Your task to perform on an android device: install app "Pluto TV - Live TV and Movies" Image 0: 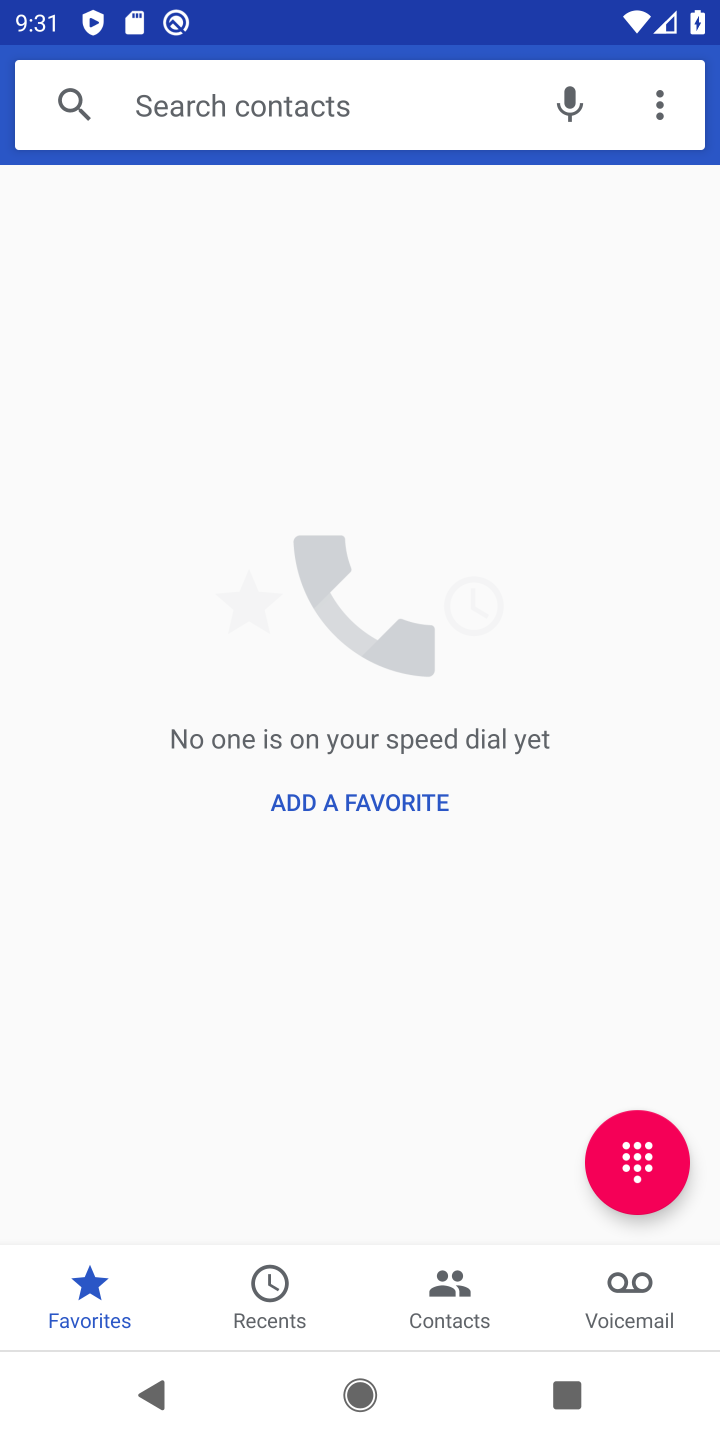
Step 0: press home button
Your task to perform on an android device: install app "Pluto TV - Live TV and Movies" Image 1: 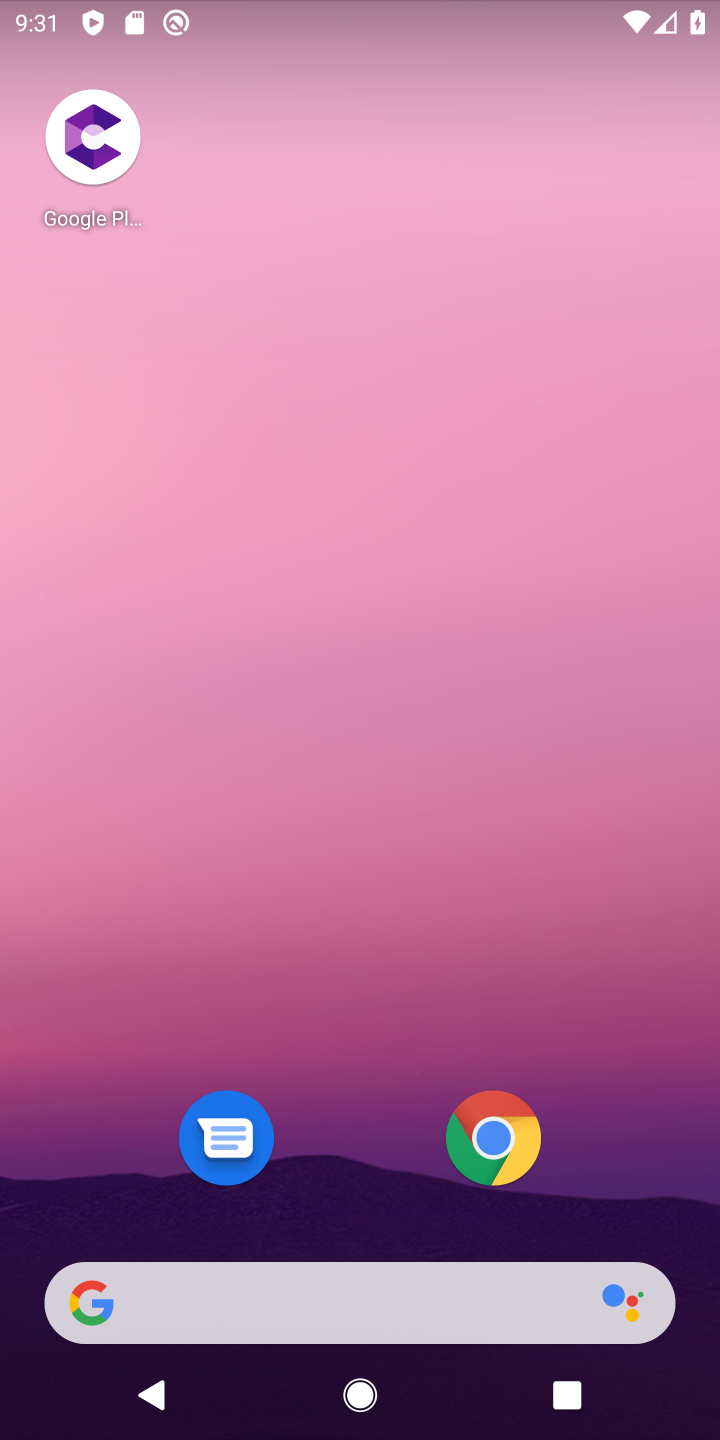
Step 1: drag from (369, 1184) to (507, 186)
Your task to perform on an android device: install app "Pluto TV - Live TV and Movies" Image 2: 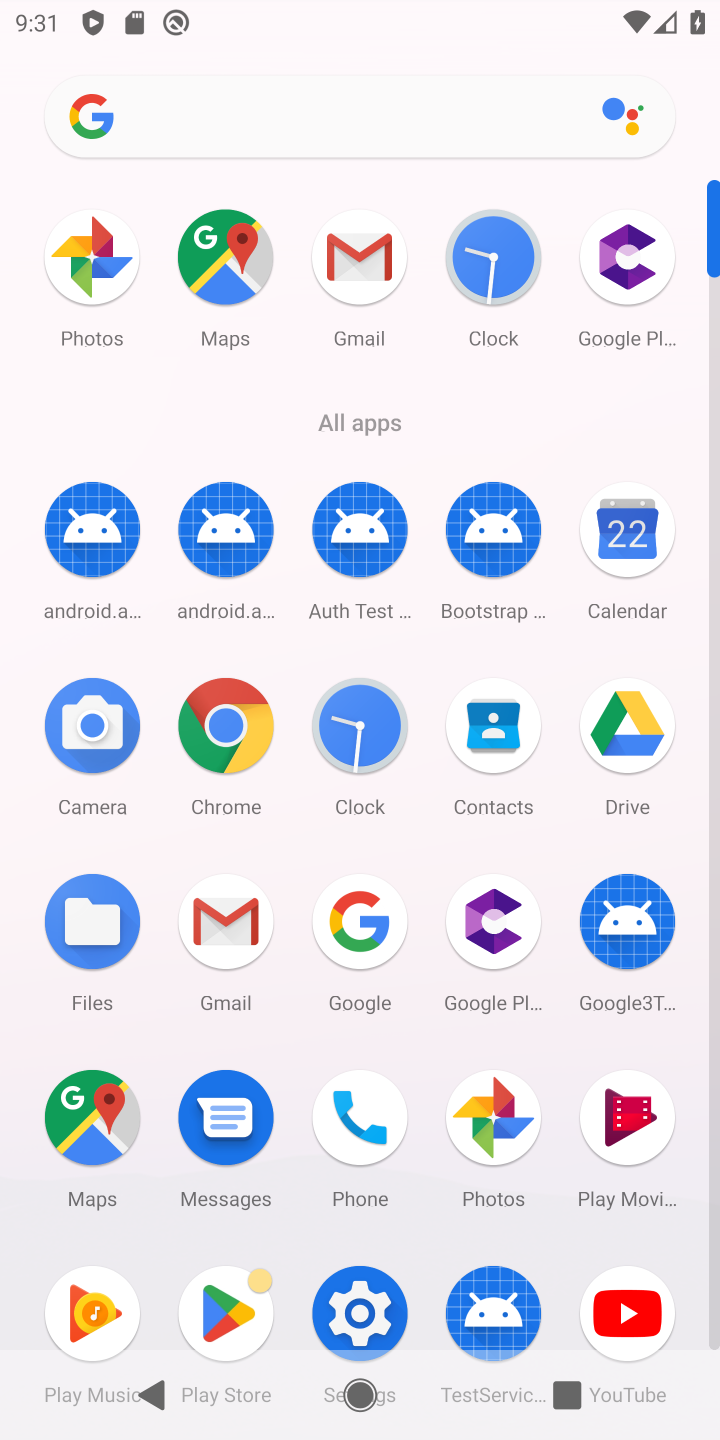
Step 2: click (231, 1307)
Your task to perform on an android device: install app "Pluto TV - Live TV and Movies" Image 3: 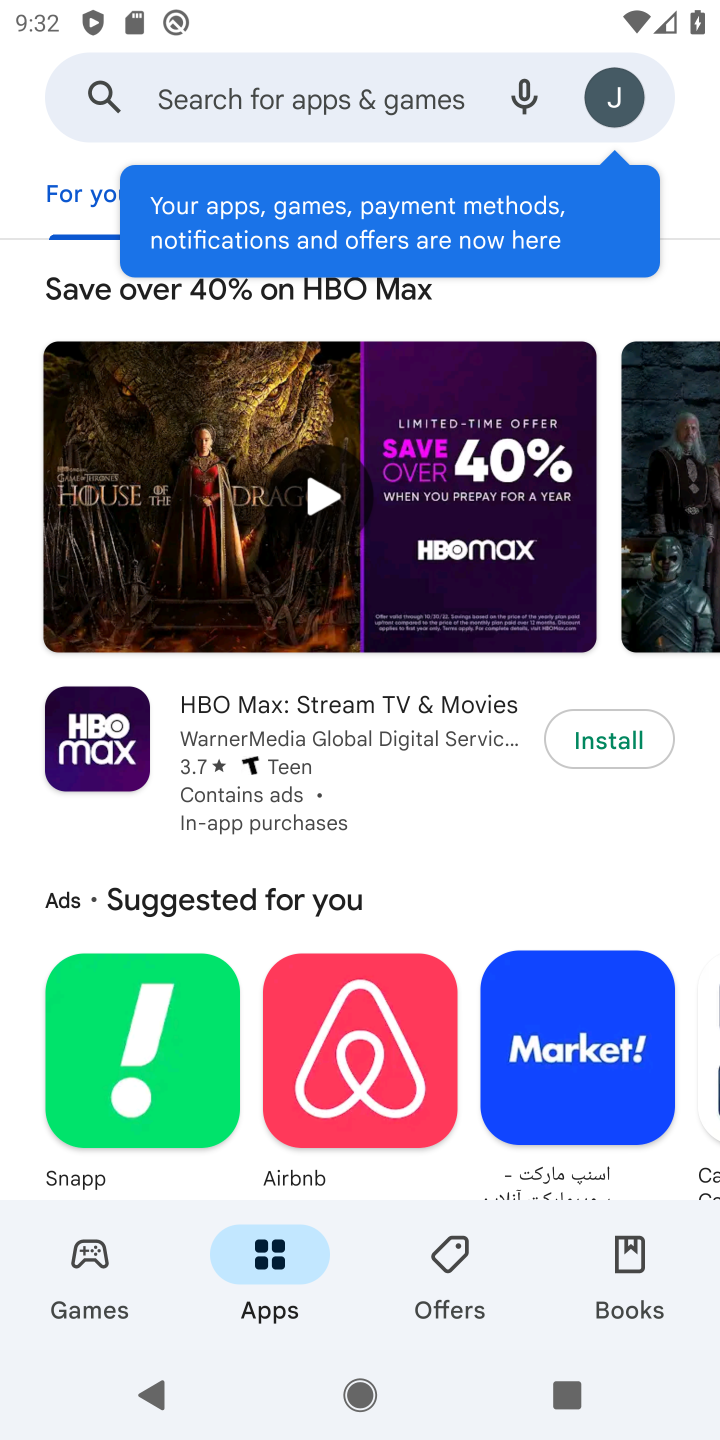
Step 3: click (263, 93)
Your task to perform on an android device: install app "Pluto TV - Live TV and Movies" Image 4: 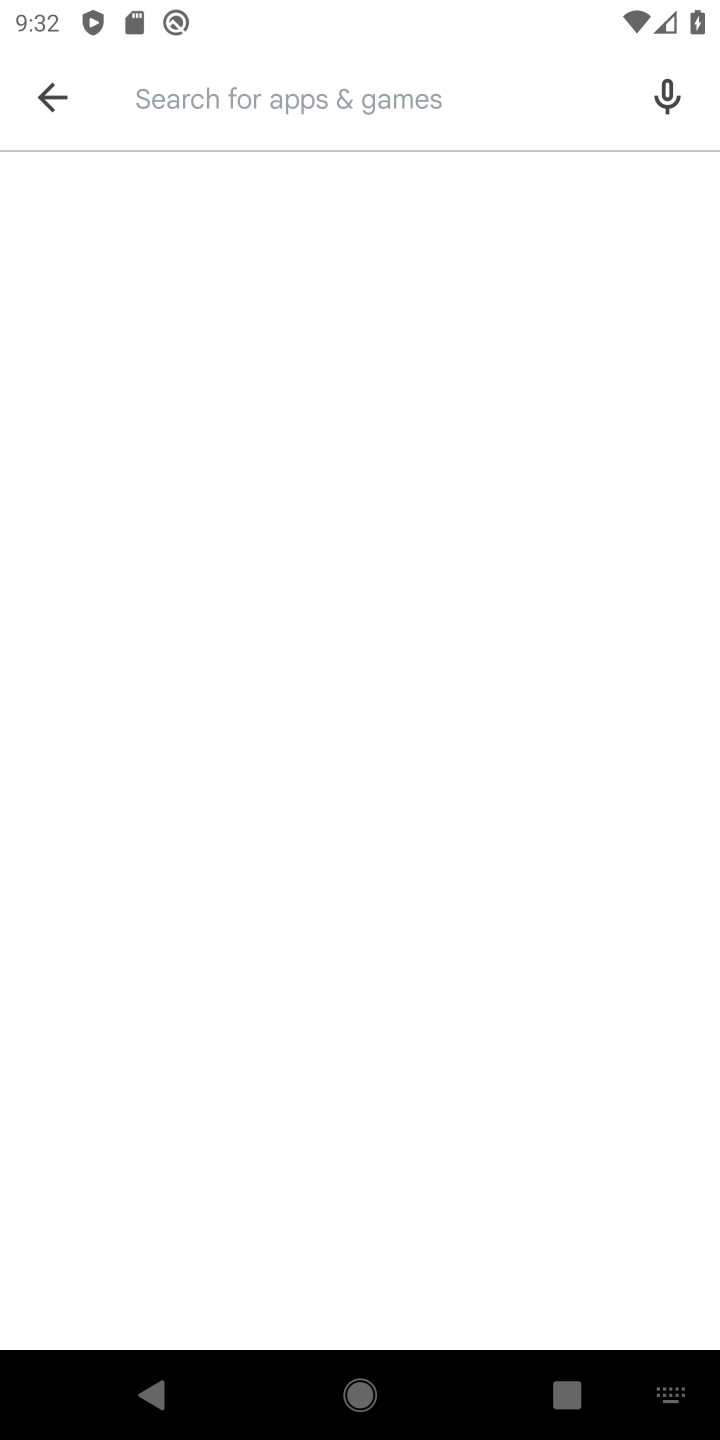
Step 4: type "Pluto TV - Live TV and Movies"
Your task to perform on an android device: install app "Pluto TV - Live TV and Movies" Image 5: 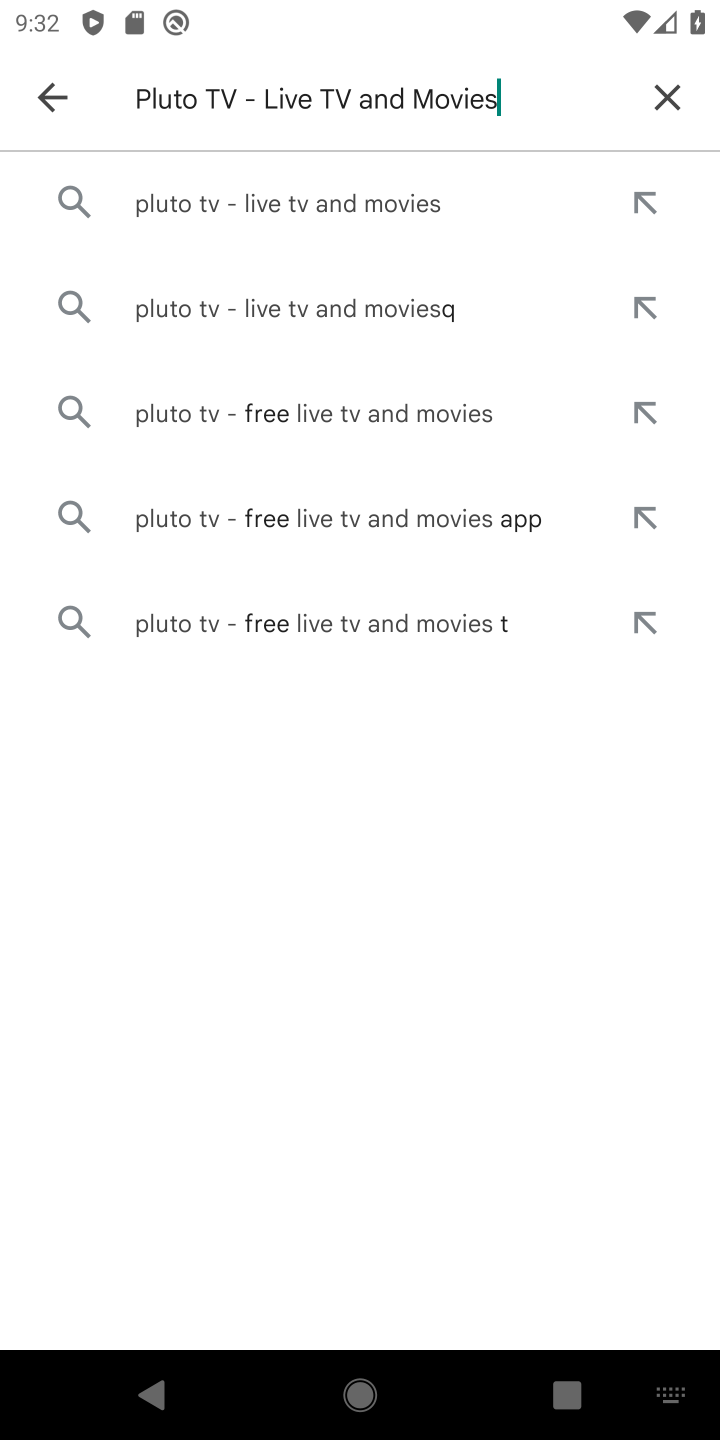
Step 5: click (181, 233)
Your task to perform on an android device: install app "Pluto TV - Live TV and Movies" Image 6: 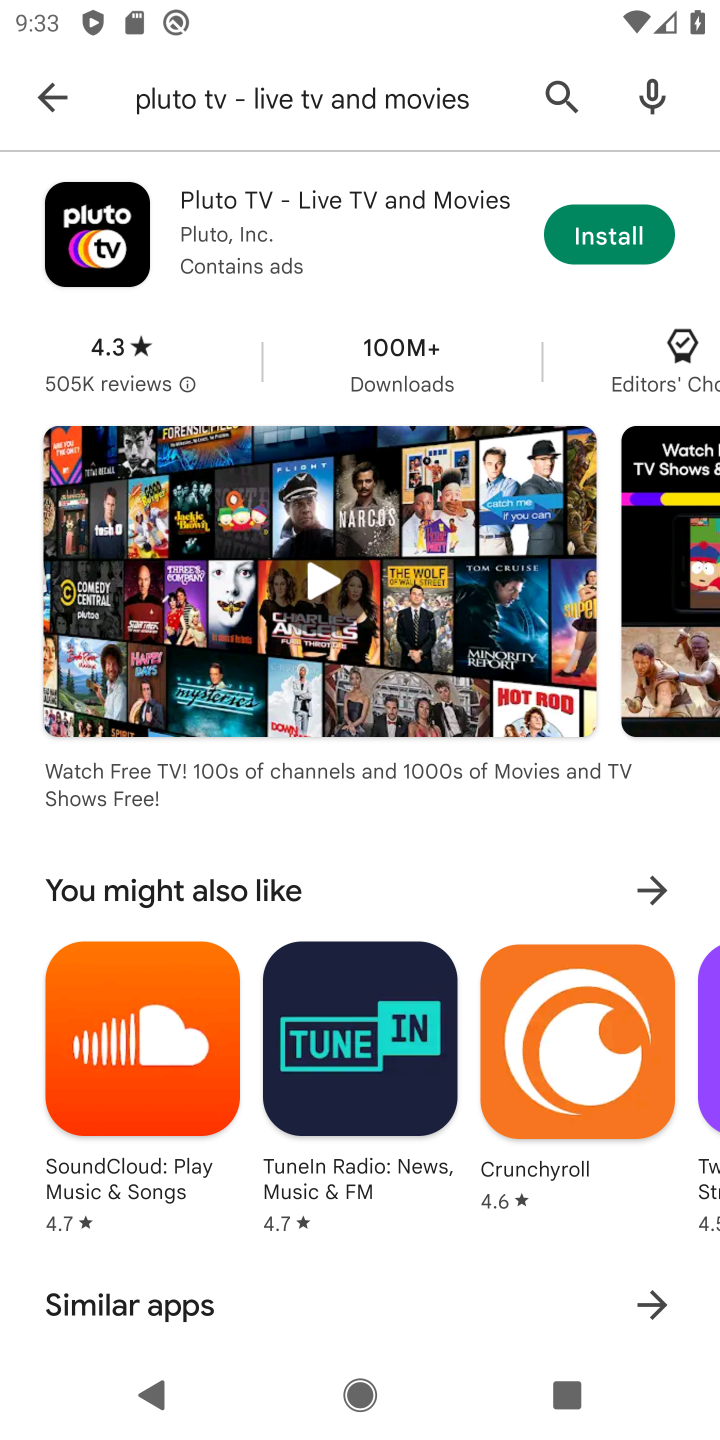
Step 6: click (617, 232)
Your task to perform on an android device: install app "Pluto TV - Live TV and Movies" Image 7: 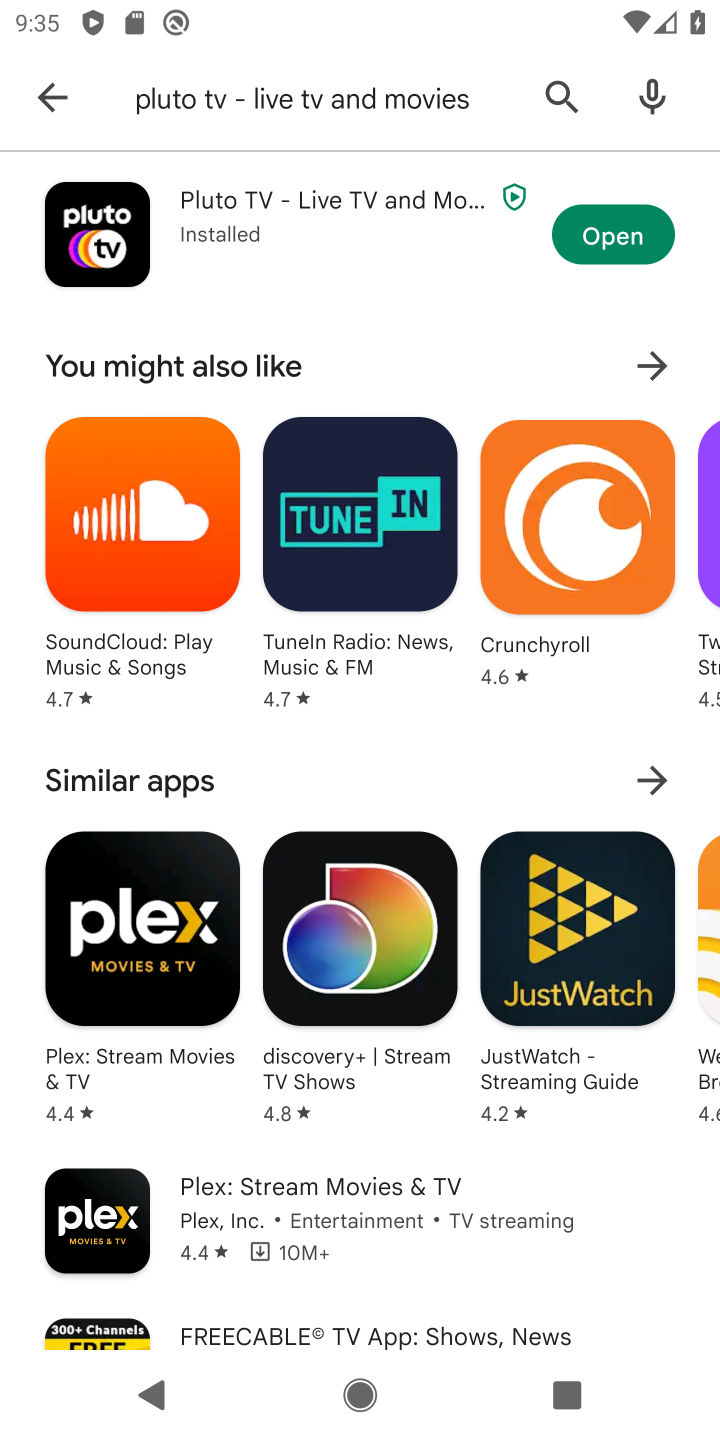
Step 7: click (590, 223)
Your task to perform on an android device: install app "Pluto TV - Live TV and Movies" Image 8: 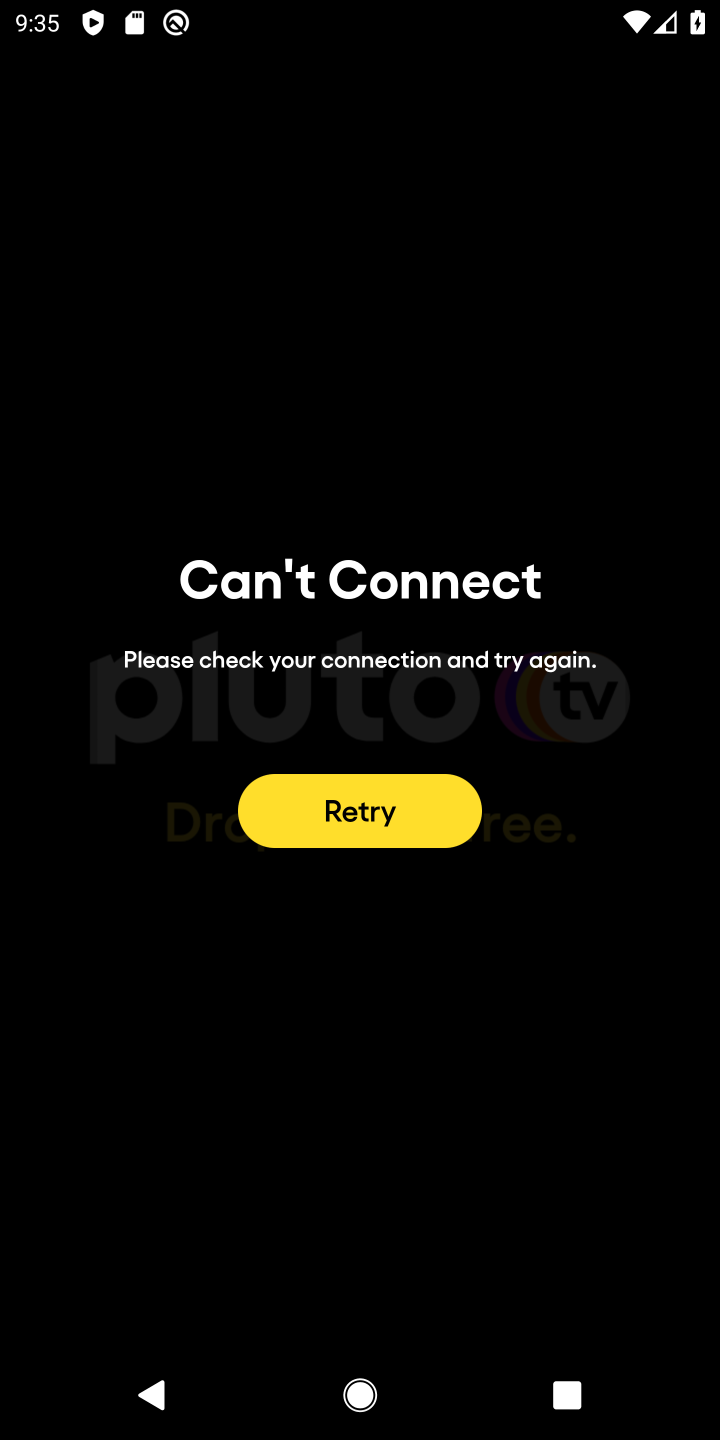
Step 8: task complete